Your task to perform on an android device: Open Google Image 0: 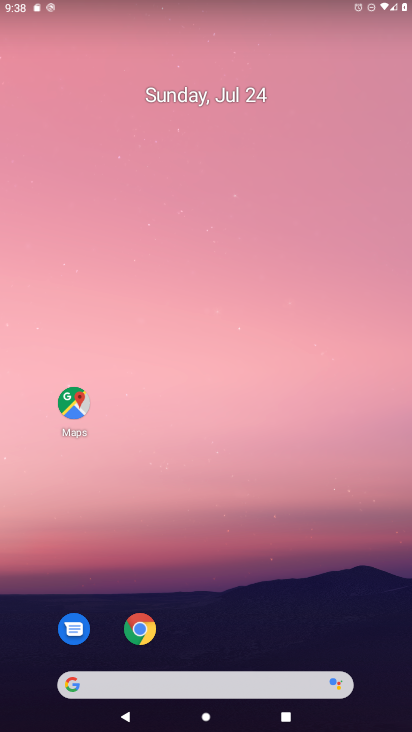
Step 0: drag from (341, 610) to (38, 31)
Your task to perform on an android device: Open Google Image 1: 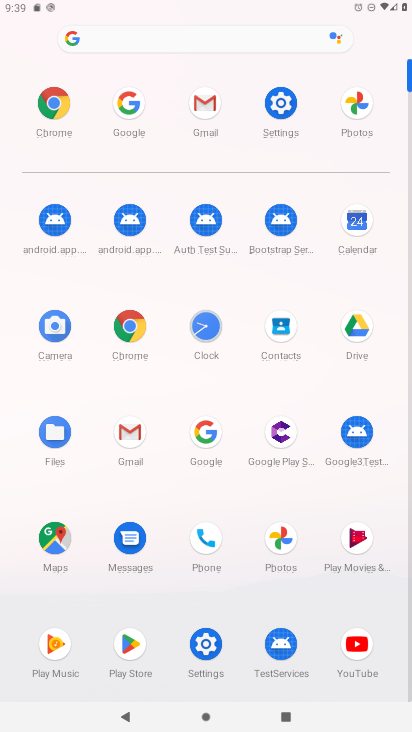
Step 1: click (185, 449)
Your task to perform on an android device: Open Google Image 2: 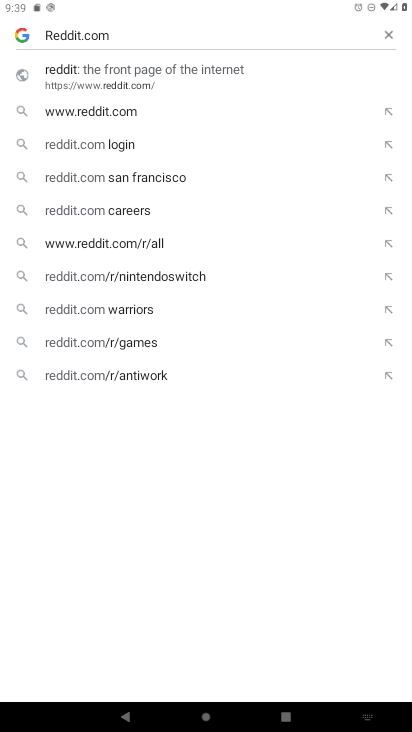
Step 2: click (389, 33)
Your task to perform on an android device: Open Google Image 3: 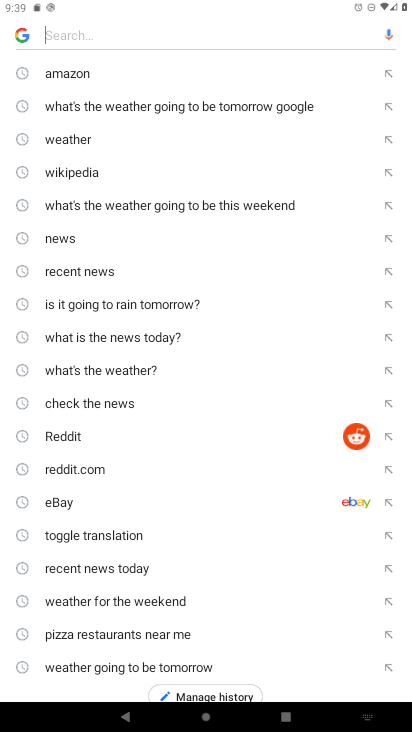
Step 3: task complete